Your task to perform on an android device: Go to Amazon Image 0: 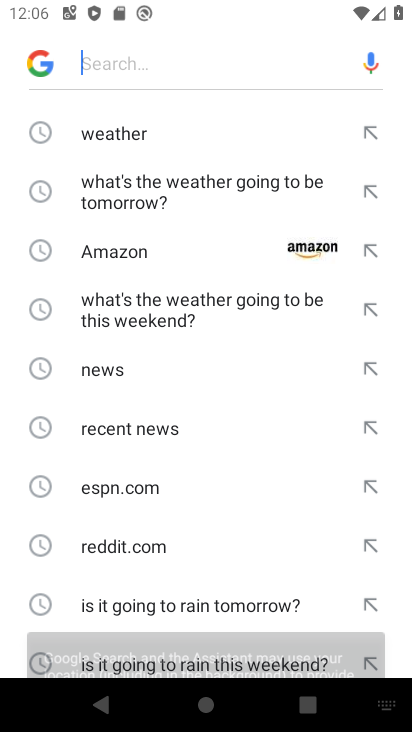
Step 0: press back button
Your task to perform on an android device: Go to Amazon Image 1: 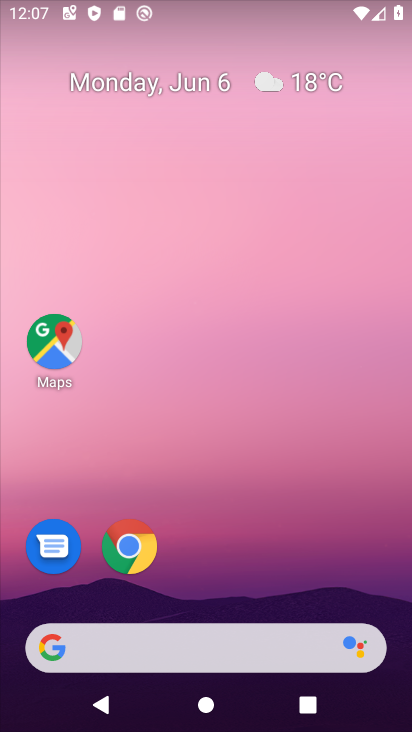
Step 1: click (125, 565)
Your task to perform on an android device: Go to Amazon Image 2: 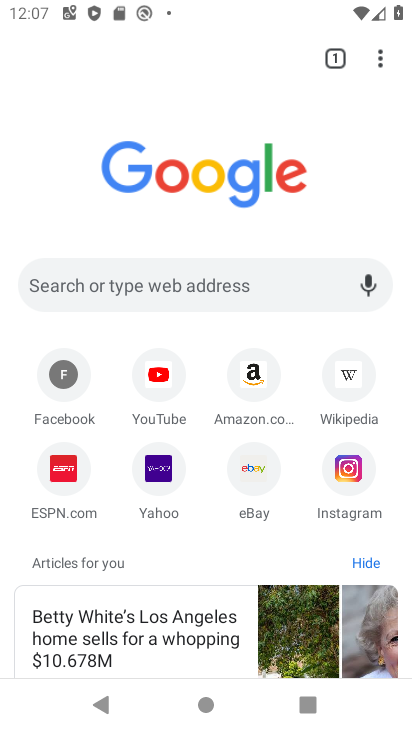
Step 2: click (255, 375)
Your task to perform on an android device: Go to Amazon Image 3: 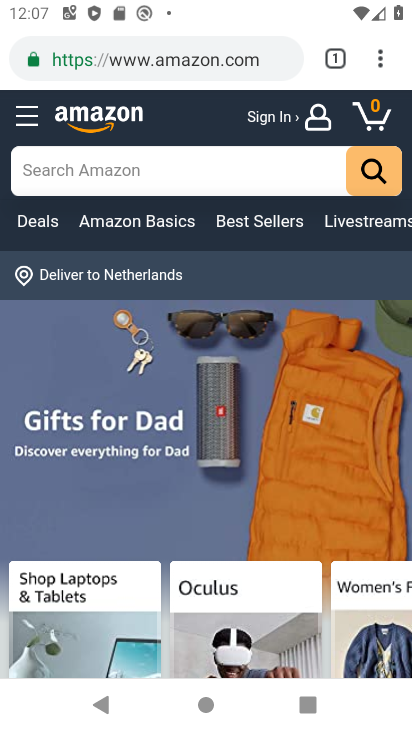
Step 3: task complete